Your task to perform on an android device: show emergency info Image 0: 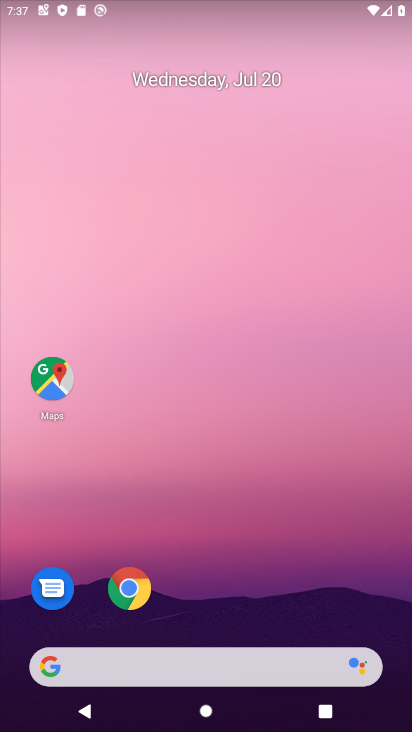
Step 0: drag from (127, 714) to (190, 68)
Your task to perform on an android device: show emergency info Image 1: 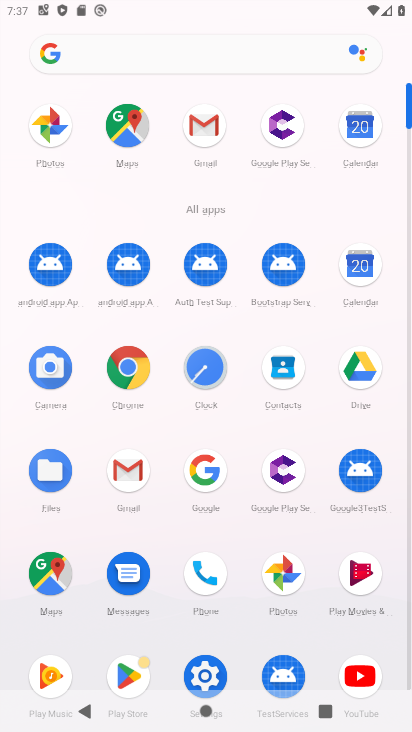
Step 1: click (201, 663)
Your task to perform on an android device: show emergency info Image 2: 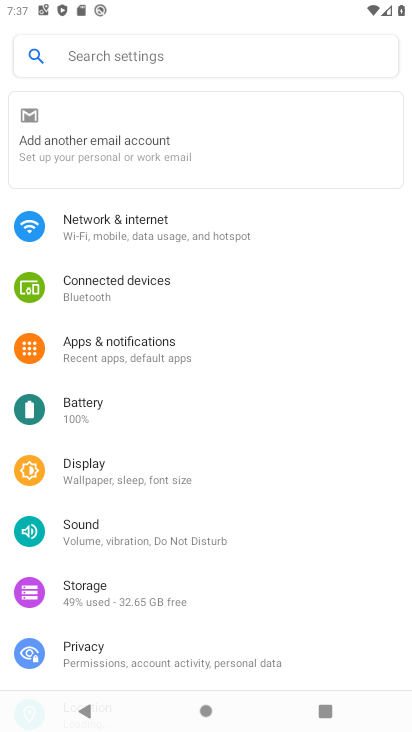
Step 2: drag from (131, 649) to (177, 11)
Your task to perform on an android device: show emergency info Image 3: 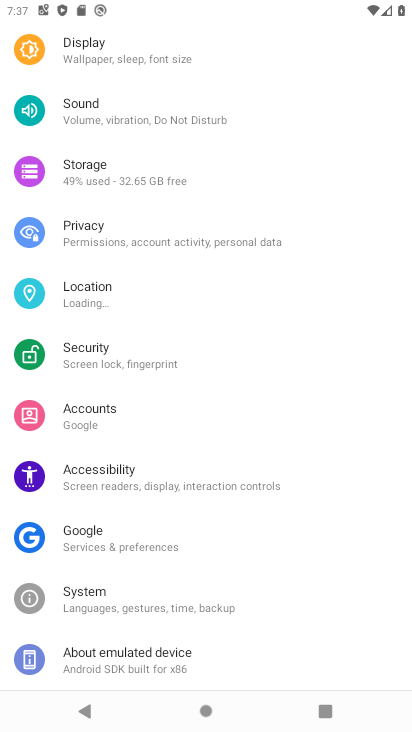
Step 3: click (160, 667)
Your task to perform on an android device: show emergency info Image 4: 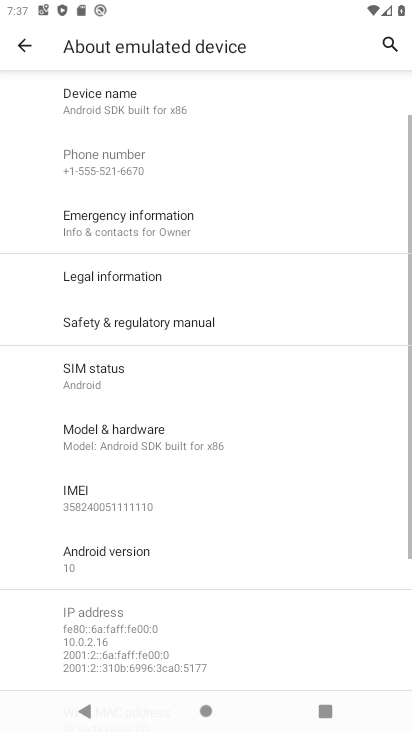
Step 4: click (141, 232)
Your task to perform on an android device: show emergency info Image 5: 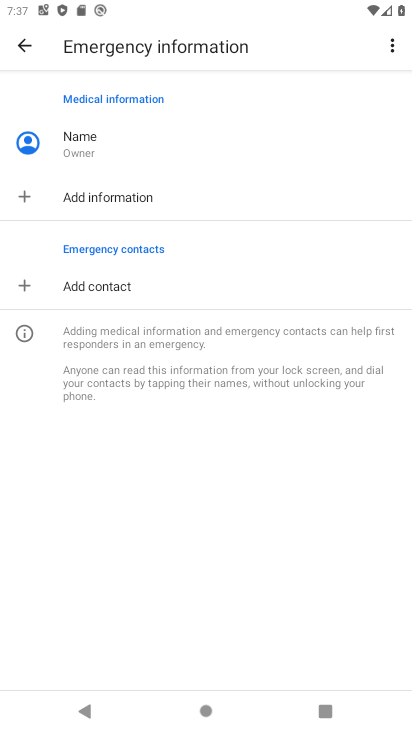
Step 5: task complete